Your task to perform on an android device: turn on airplane mode Image 0: 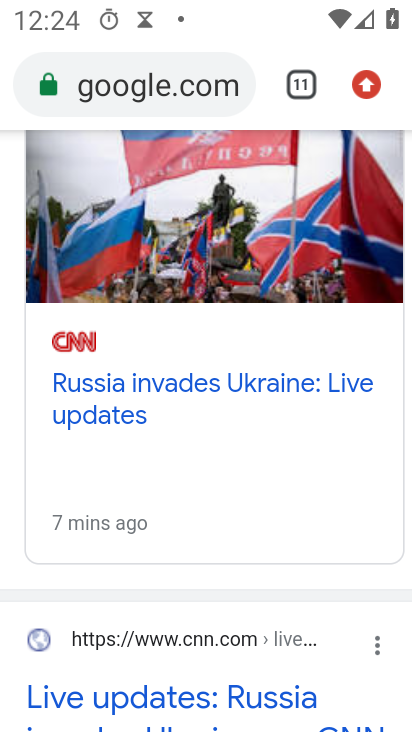
Step 0: press home button
Your task to perform on an android device: turn on airplane mode Image 1: 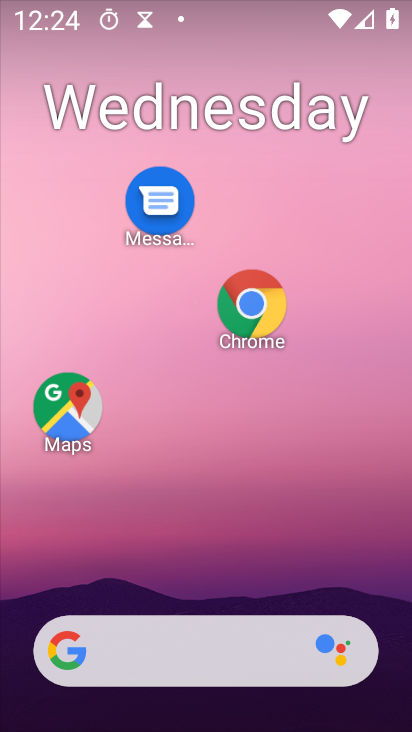
Step 1: drag from (276, 546) to (326, 193)
Your task to perform on an android device: turn on airplane mode Image 2: 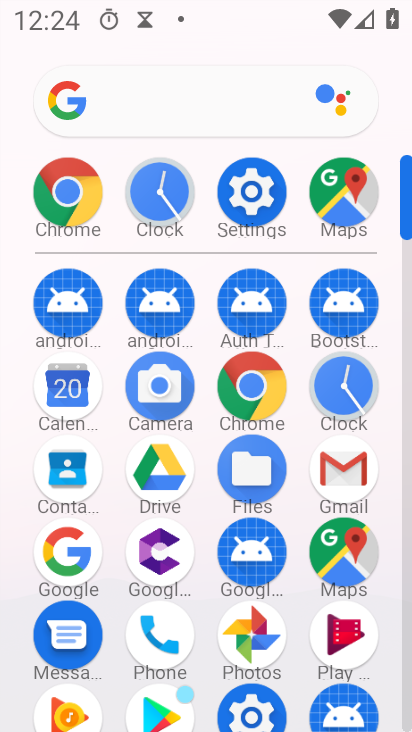
Step 2: click (266, 190)
Your task to perform on an android device: turn on airplane mode Image 3: 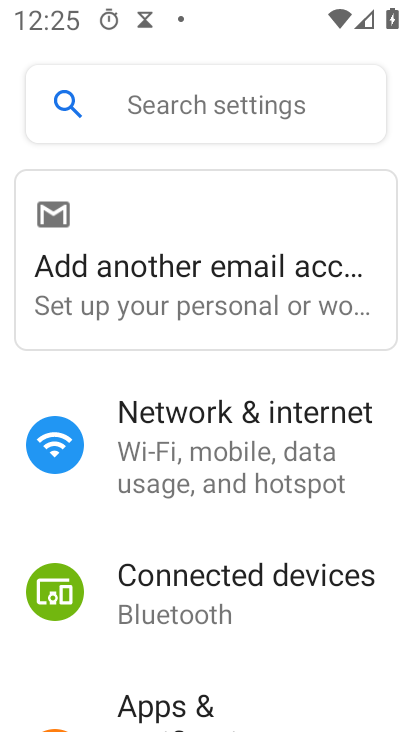
Step 3: click (246, 438)
Your task to perform on an android device: turn on airplane mode Image 4: 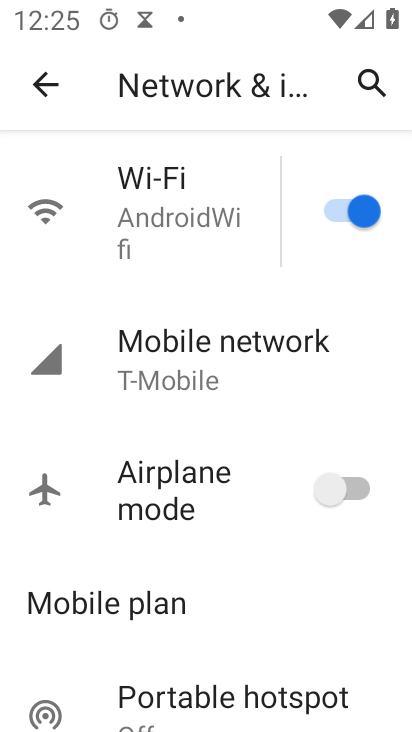
Step 4: click (337, 492)
Your task to perform on an android device: turn on airplane mode Image 5: 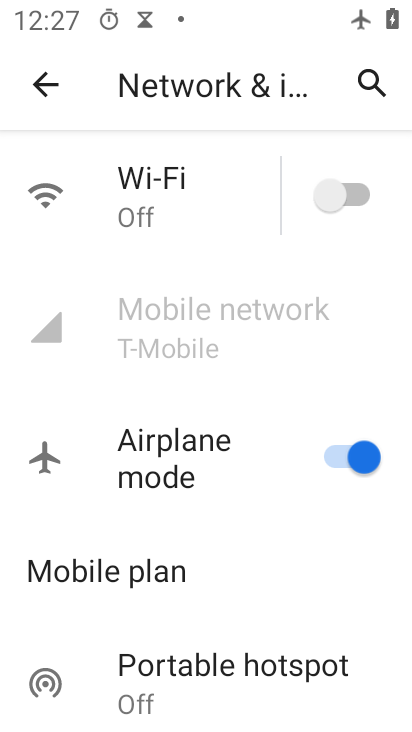
Step 5: task complete